Your task to perform on an android device: What's the news in Singapore? Image 0: 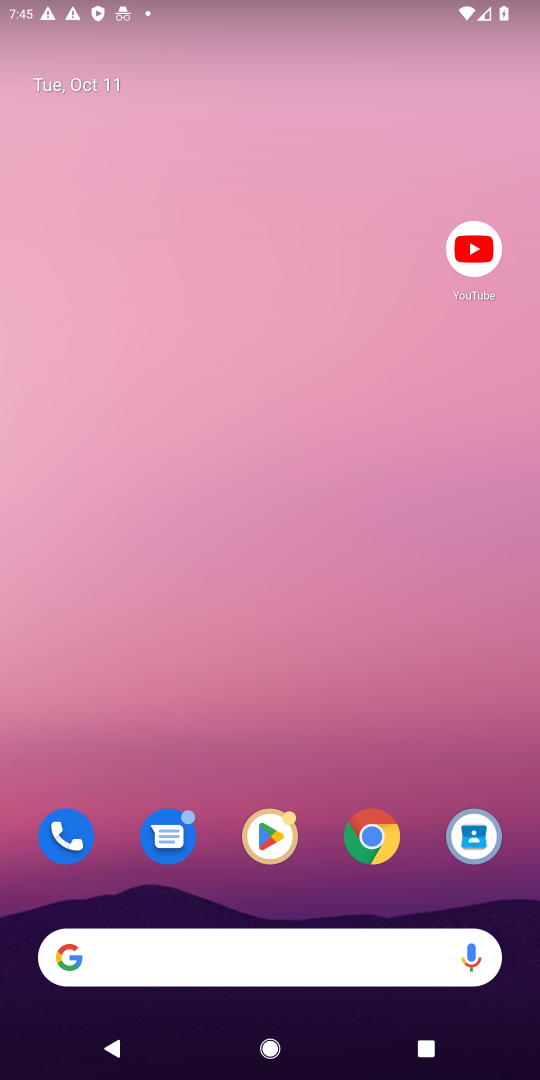
Step 0: click (383, 820)
Your task to perform on an android device: What's the news in Singapore? Image 1: 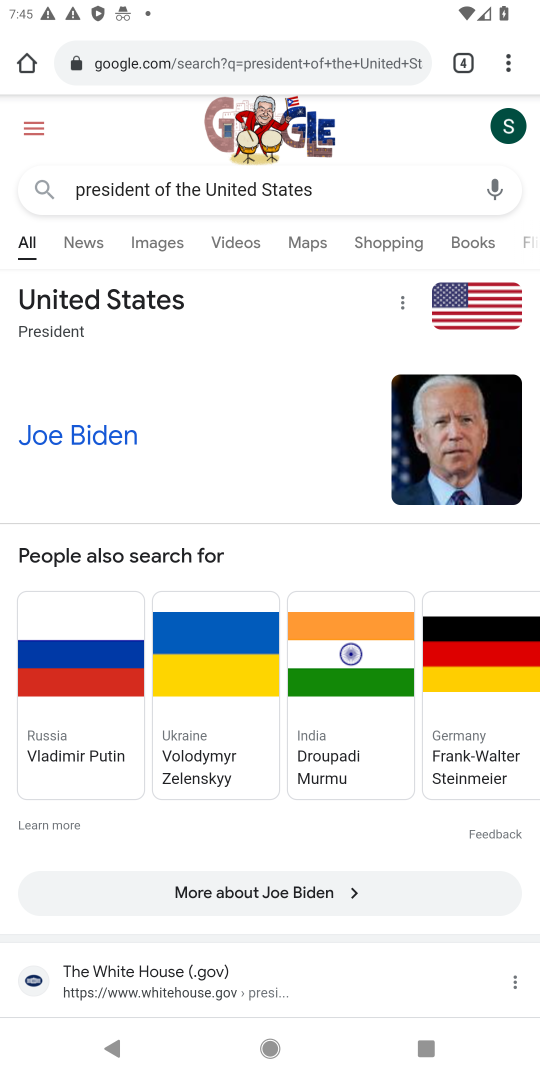
Step 1: click (261, 48)
Your task to perform on an android device: What's the news in Singapore? Image 2: 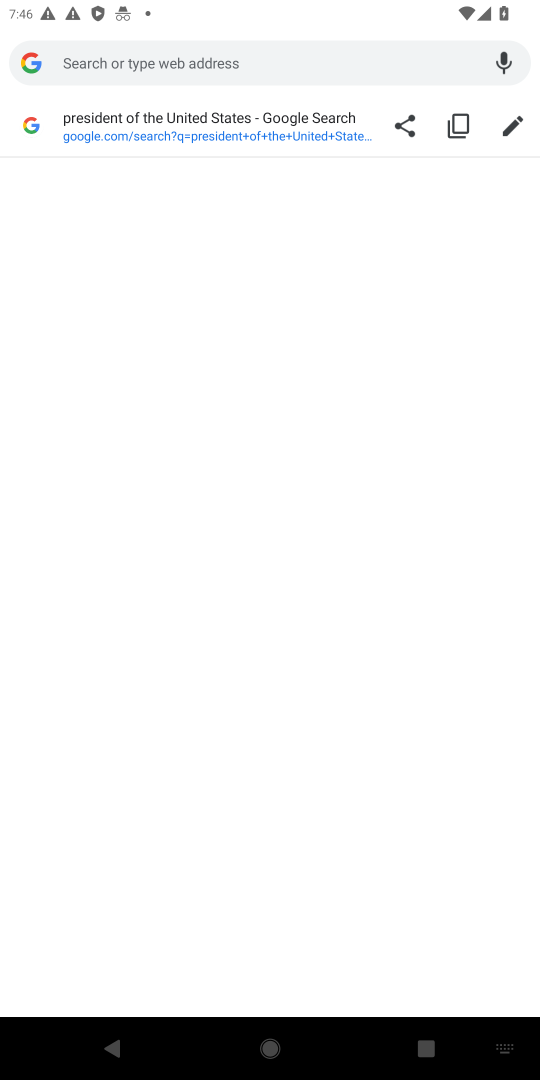
Step 2: type "news in Singapore"
Your task to perform on an android device: What's the news in Singapore? Image 3: 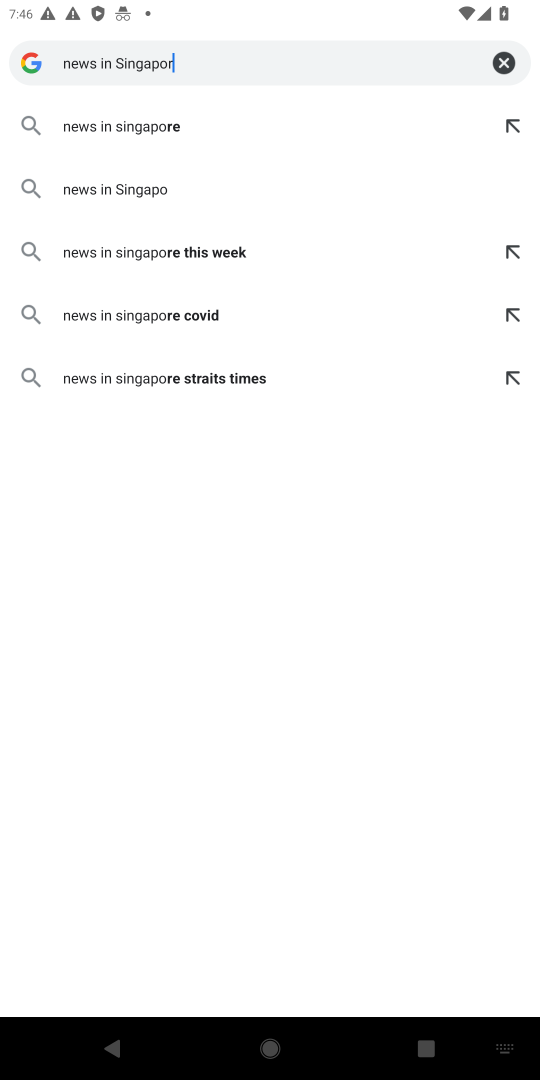
Step 3: press enter
Your task to perform on an android device: What's the news in Singapore? Image 4: 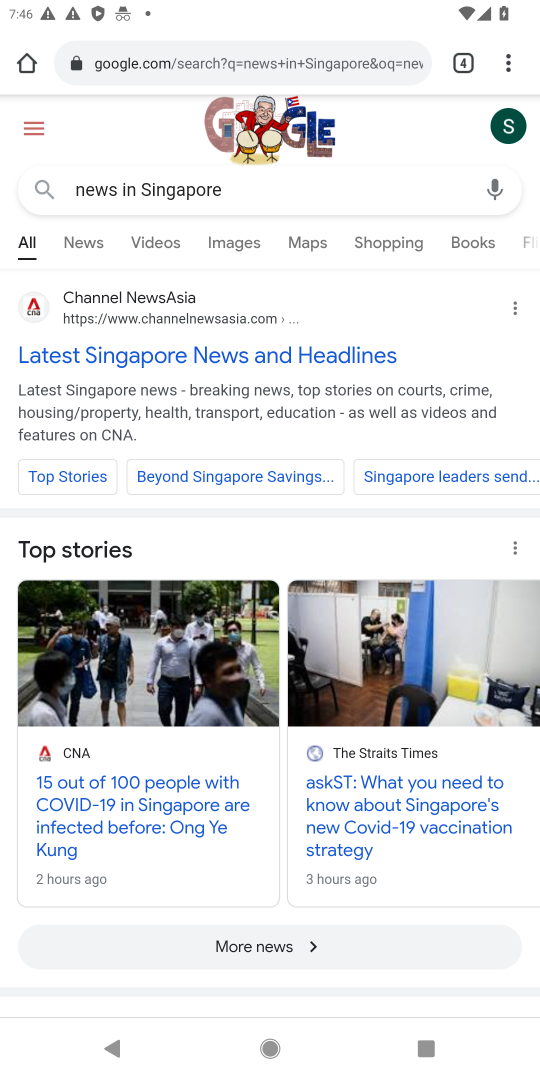
Step 4: click (77, 241)
Your task to perform on an android device: What's the news in Singapore? Image 5: 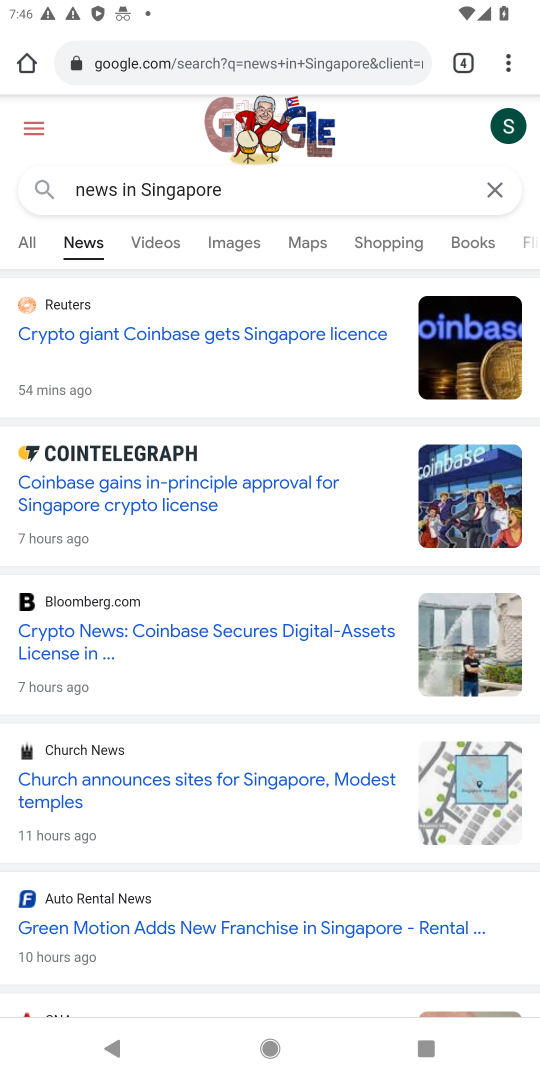
Step 5: task complete